Your task to perform on an android device: Search for Italian restaurants on Maps Image 0: 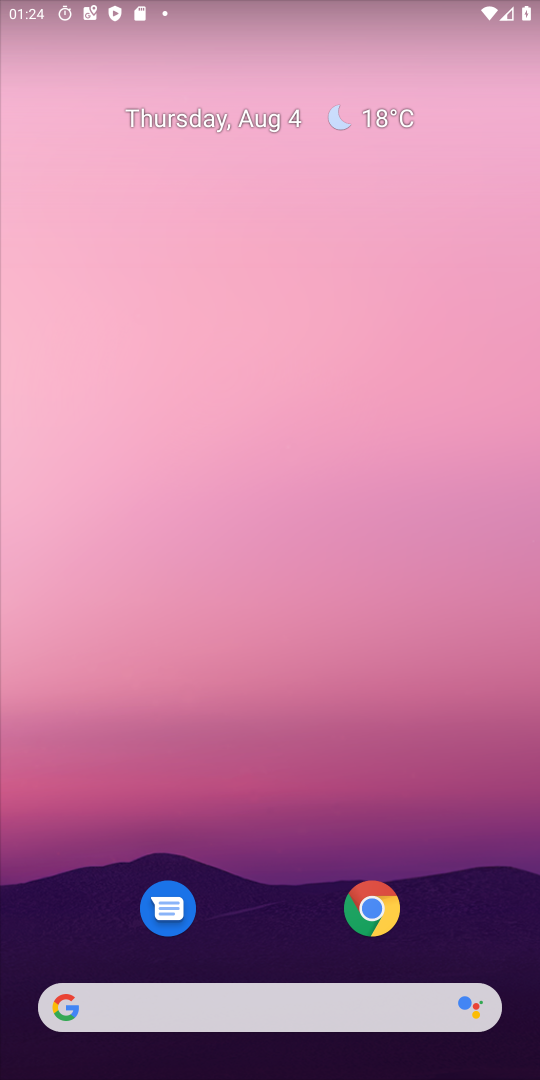
Step 0: drag from (313, 994) to (223, 402)
Your task to perform on an android device: Search for Italian restaurants on Maps Image 1: 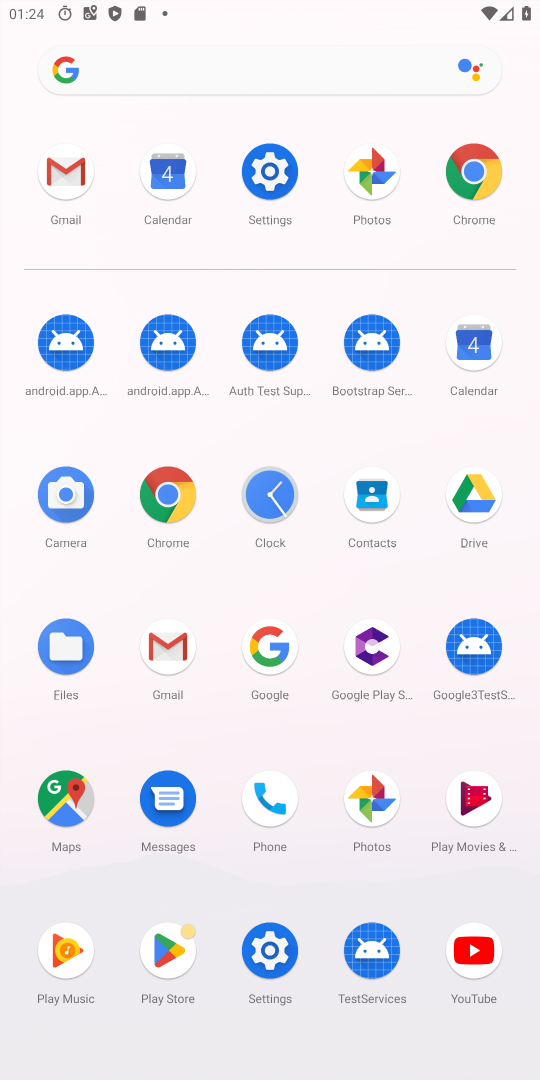
Step 1: click (68, 782)
Your task to perform on an android device: Search for Italian restaurants on Maps Image 2: 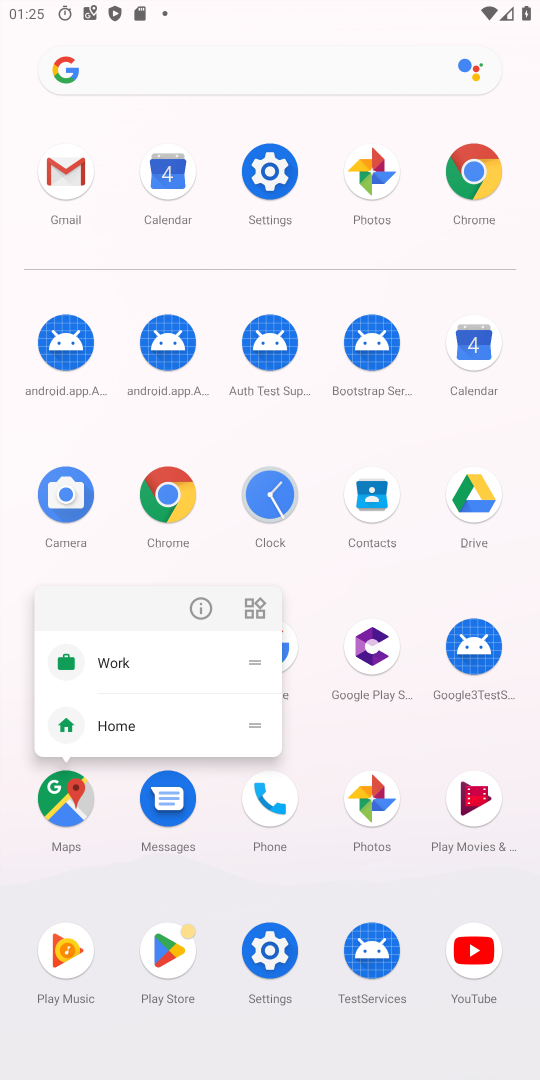
Step 2: click (80, 828)
Your task to perform on an android device: Search for Italian restaurants on Maps Image 3: 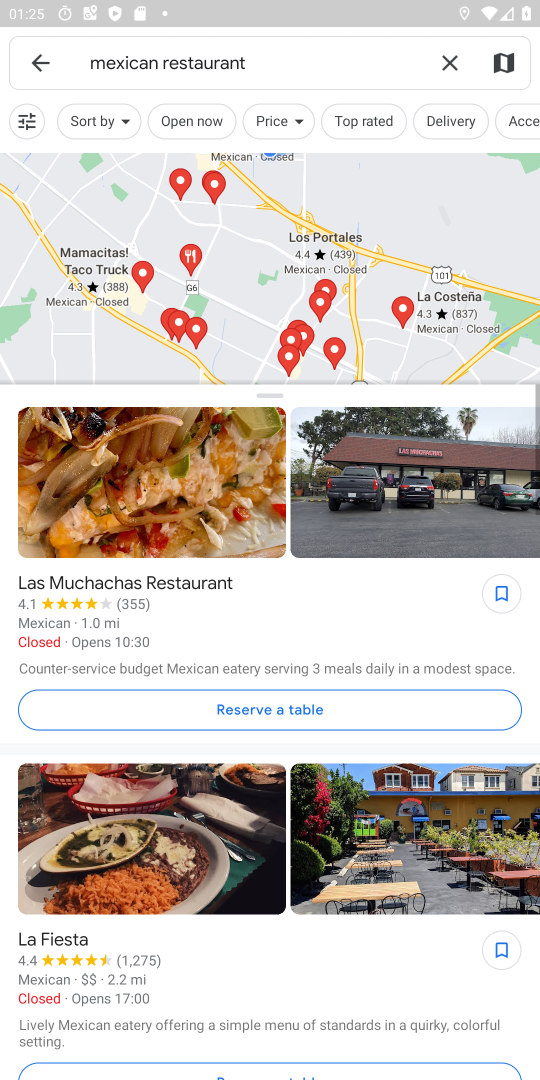
Step 3: click (454, 42)
Your task to perform on an android device: Search for Italian restaurants on Maps Image 4: 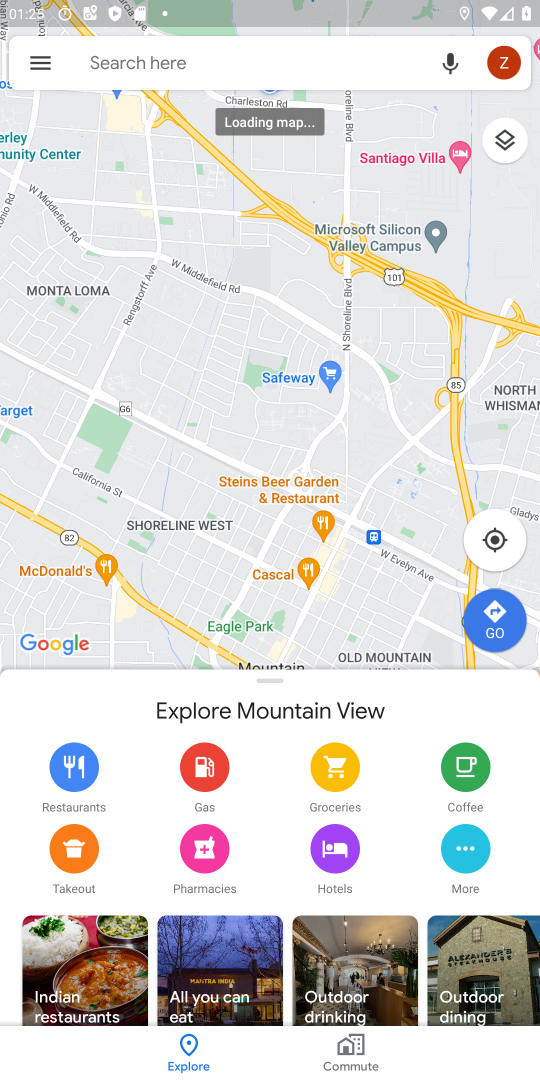
Step 4: click (189, 59)
Your task to perform on an android device: Search for Italian restaurants on Maps Image 5: 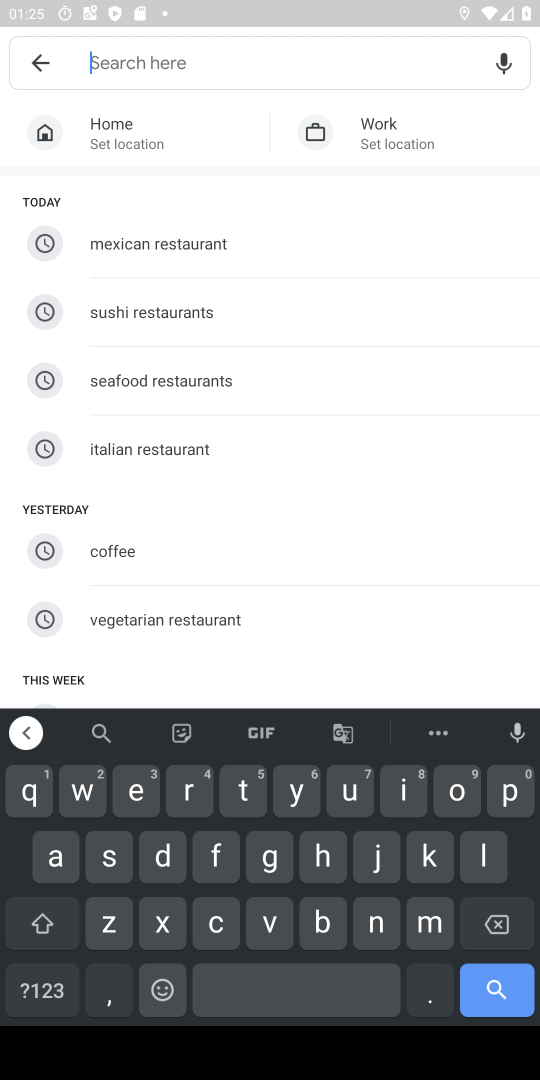
Step 5: click (399, 803)
Your task to perform on an android device: Search for Italian restaurants on Maps Image 6: 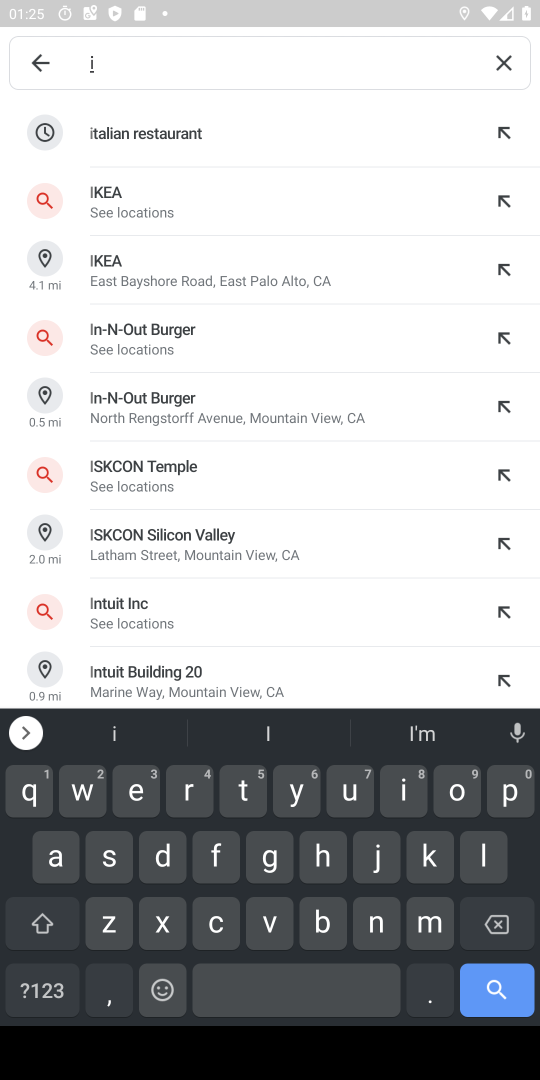
Step 6: click (168, 136)
Your task to perform on an android device: Search for Italian restaurants on Maps Image 7: 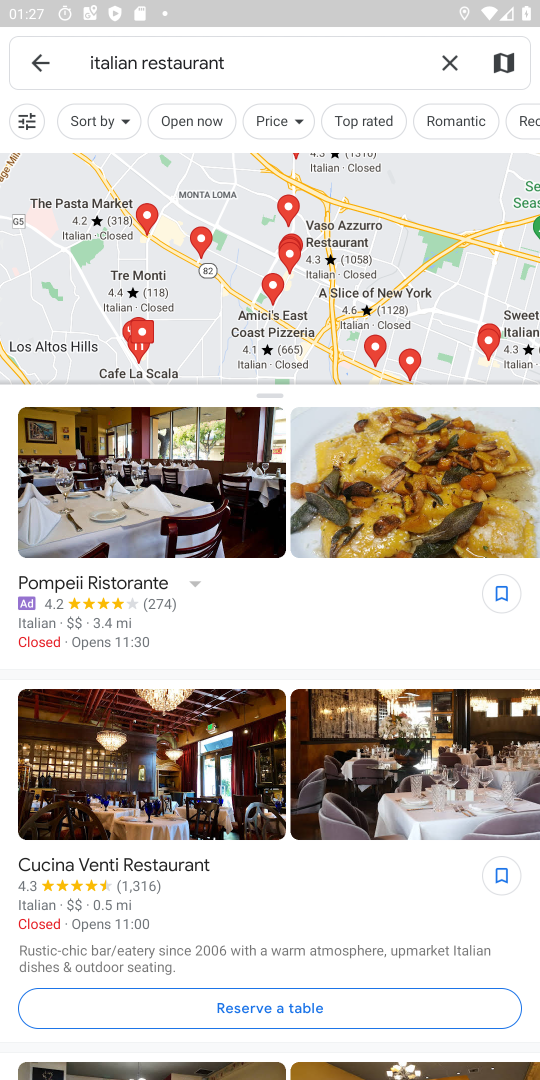
Step 7: task complete